Your task to perform on an android device: allow cookies in the chrome app Image 0: 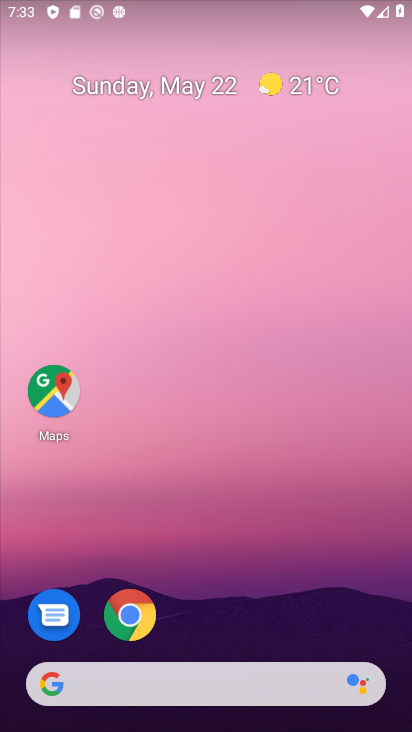
Step 0: drag from (258, 567) to (243, 347)
Your task to perform on an android device: allow cookies in the chrome app Image 1: 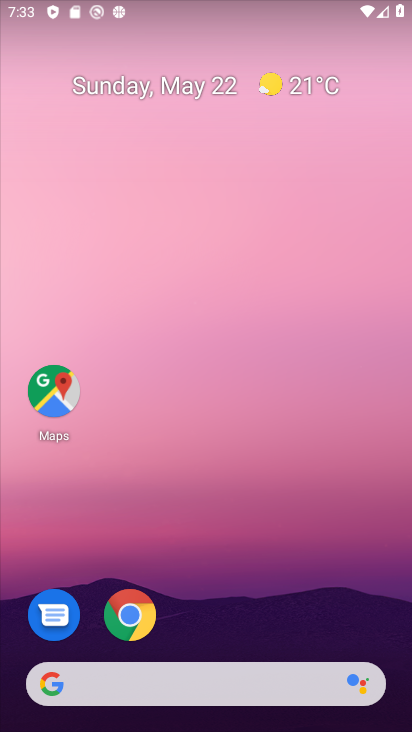
Step 1: click (125, 616)
Your task to perform on an android device: allow cookies in the chrome app Image 2: 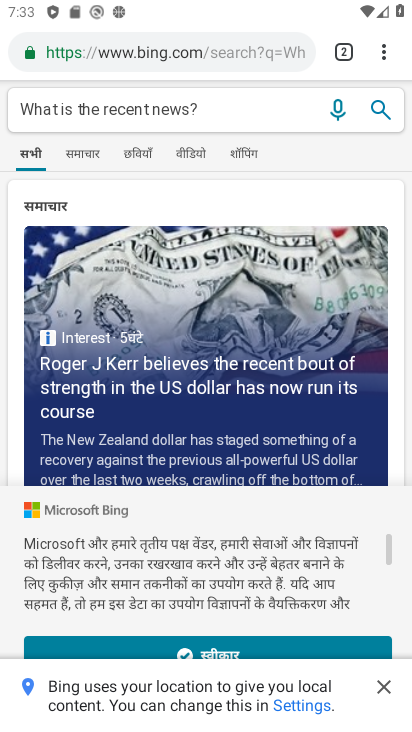
Step 2: click (378, 56)
Your task to perform on an android device: allow cookies in the chrome app Image 3: 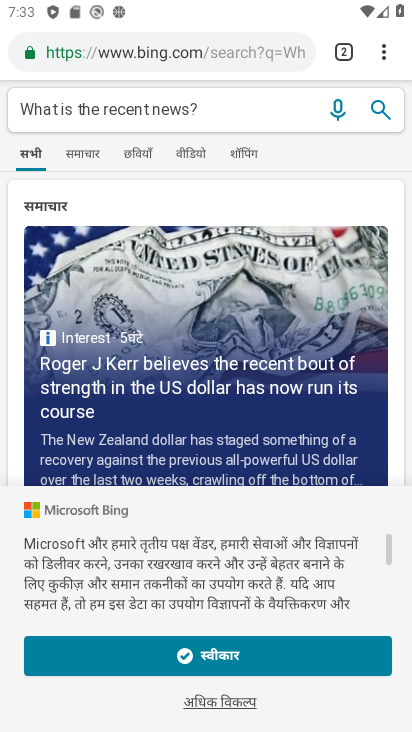
Step 3: click (394, 68)
Your task to perform on an android device: allow cookies in the chrome app Image 4: 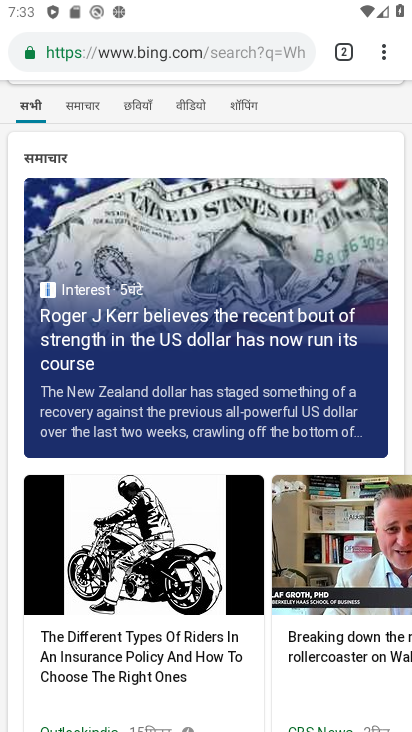
Step 4: click (383, 55)
Your task to perform on an android device: allow cookies in the chrome app Image 5: 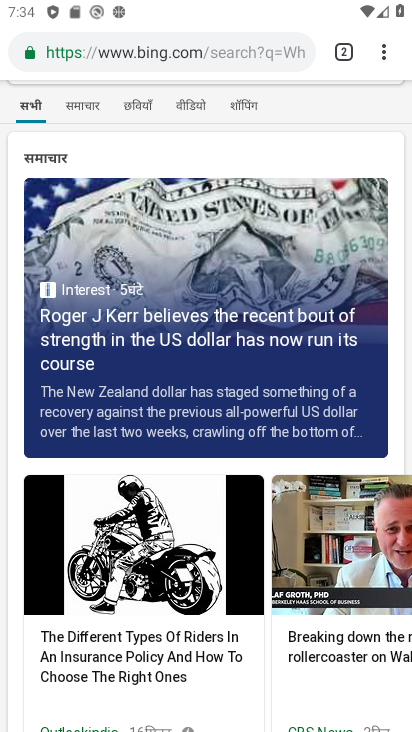
Step 5: click (382, 50)
Your task to perform on an android device: allow cookies in the chrome app Image 6: 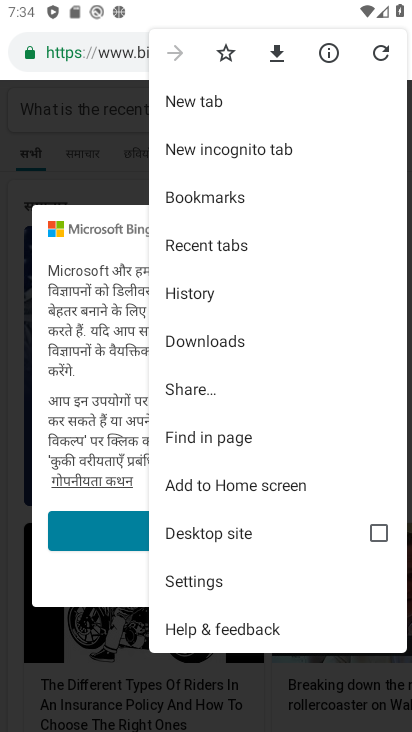
Step 6: click (229, 587)
Your task to perform on an android device: allow cookies in the chrome app Image 7: 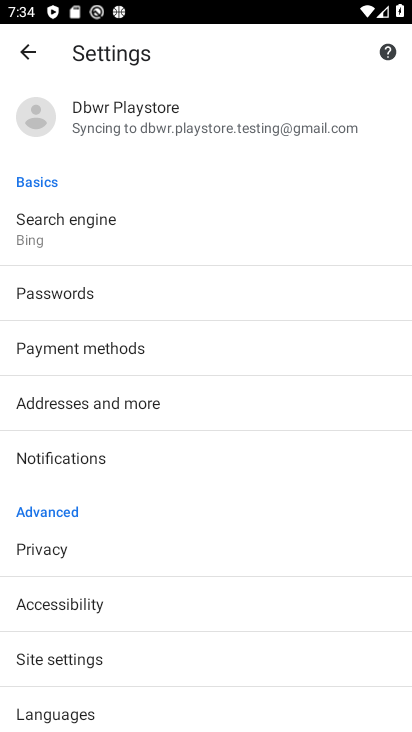
Step 7: drag from (105, 636) to (152, 472)
Your task to perform on an android device: allow cookies in the chrome app Image 8: 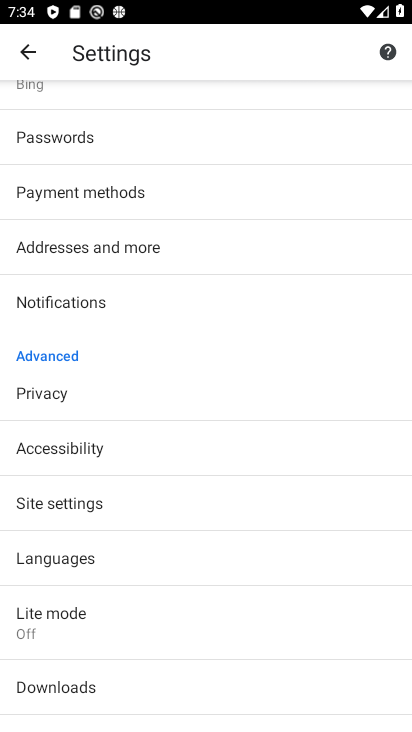
Step 8: click (151, 517)
Your task to perform on an android device: allow cookies in the chrome app Image 9: 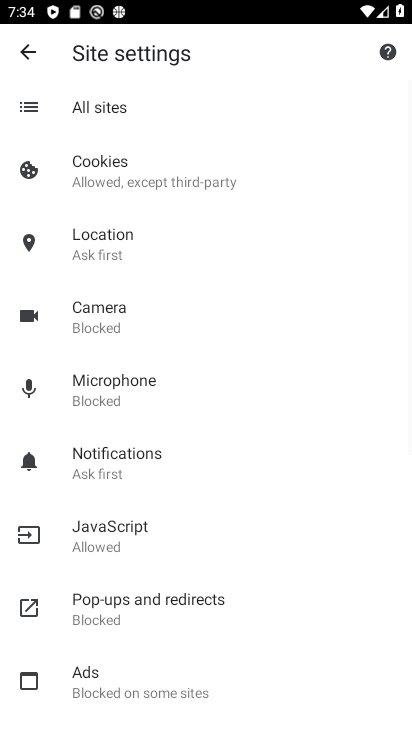
Step 9: click (109, 166)
Your task to perform on an android device: allow cookies in the chrome app Image 10: 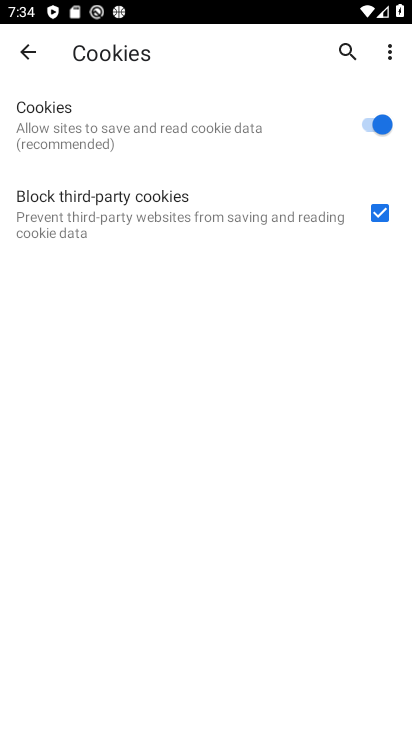
Step 10: task complete